Your task to perform on an android device: toggle show notifications on the lock screen Image 0: 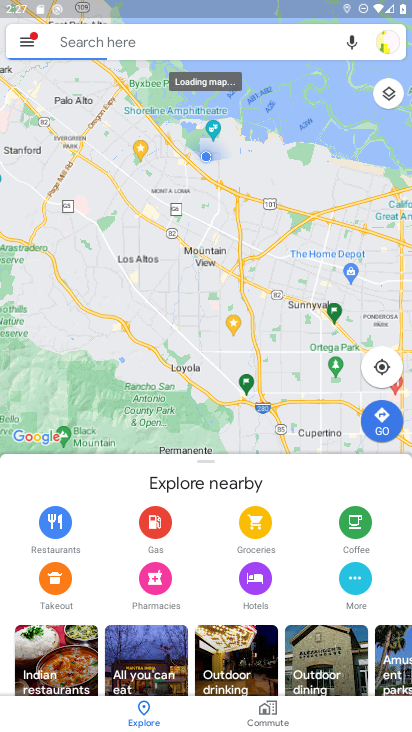
Step 0: press home button
Your task to perform on an android device: toggle show notifications on the lock screen Image 1: 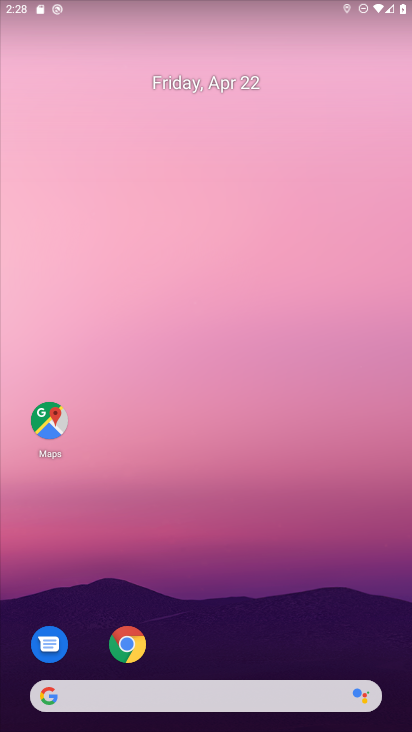
Step 1: drag from (269, 594) to (252, 137)
Your task to perform on an android device: toggle show notifications on the lock screen Image 2: 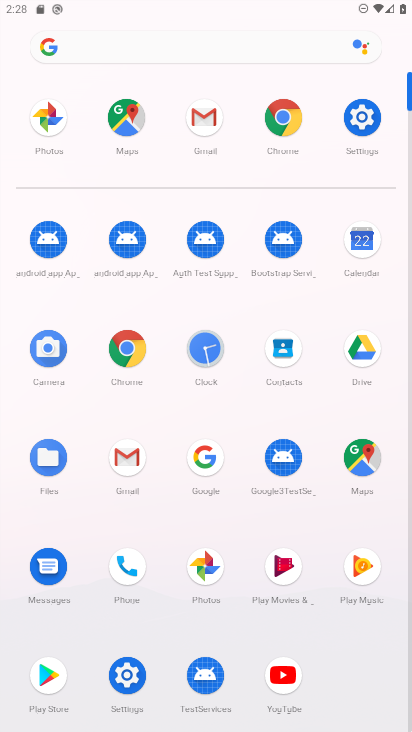
Step 2: click (372, 119)
Your task to perform on an android device: toggle show notifications on the lock screen Image 3: 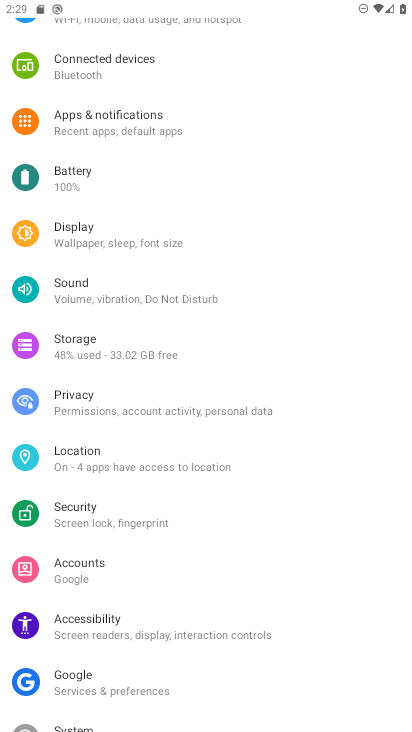
Step 3: click (99, 131)
Your task to perform on an android device: toggle show notifications on the lock screen Image 4: 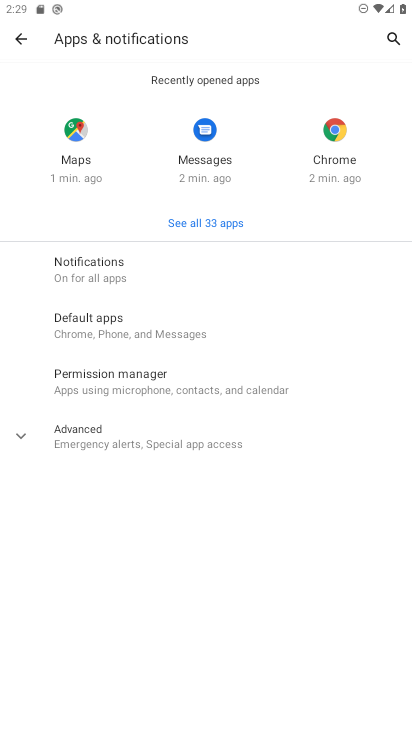
Step 4: click (102, 263)
Your task to perform on an android device: toggle show notifications on the lock screen Image 5: 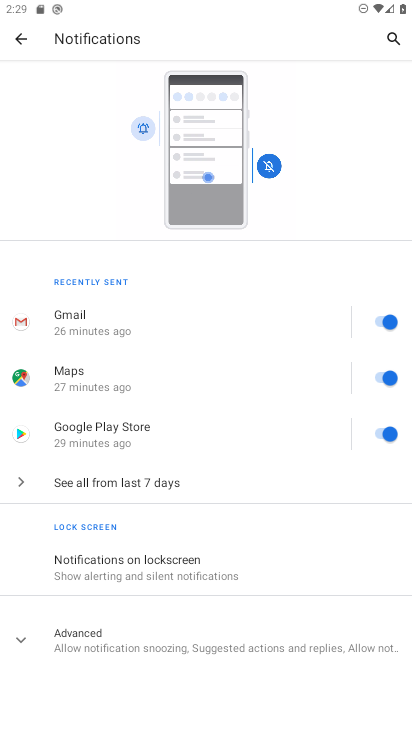
Step 5: click (212, 576)
Your task to perform on an android device: toggle show notifications on the lock screen Image 6: 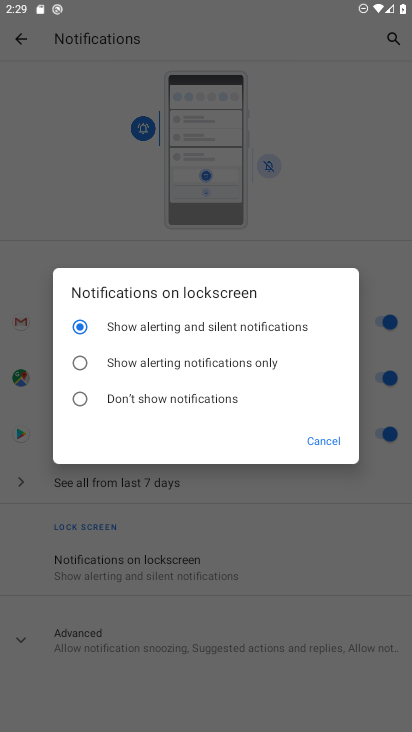
Step 6: click (171, 347)
Your task to perform on an android device: toggle show notifications on the lock screen Image 7: 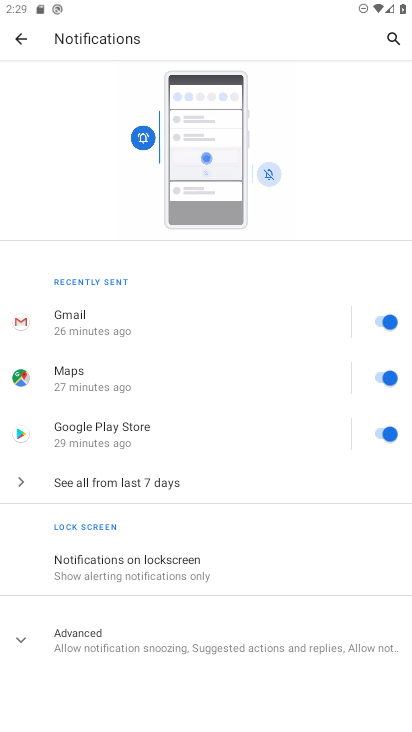
Step 7: task complete